Your task to perform on an android device: Search for vegetarian restaurants on Maps Image 0: 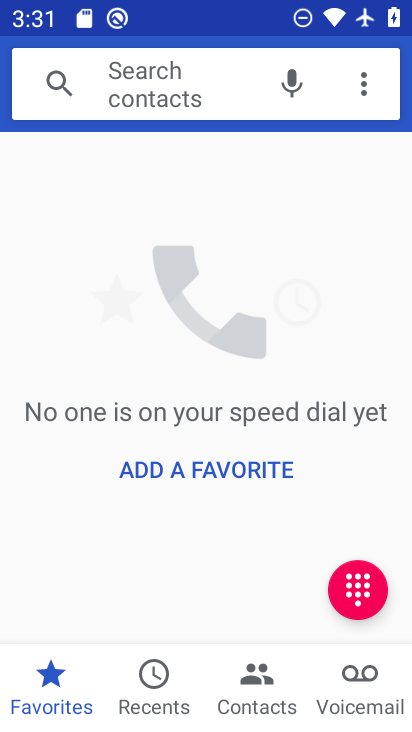
Step 0: press home button
Your task to perform on an android device: Search for vegetarian restaurants on Maps Image 1: 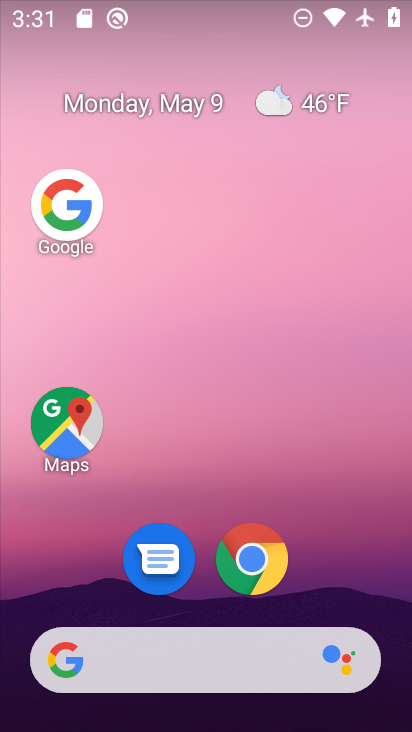
Step 1: click (54, 429)
Your task to perform on an android device: Search for vegetarian restaurants on Maps Image 2: 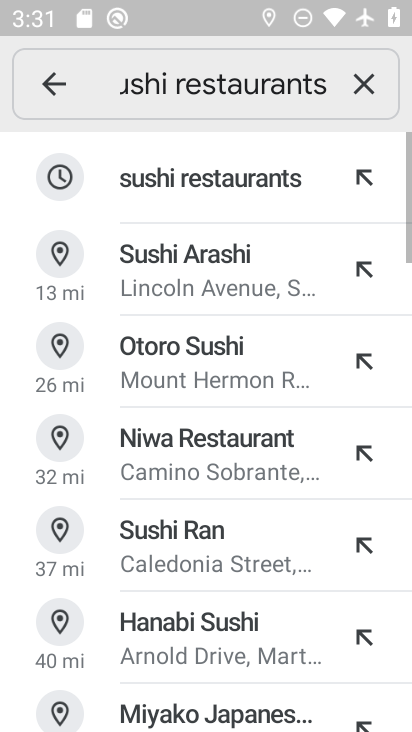
Step 2: click (358, 84)
Your task to perform on an android device: Search for vegetarian restaurants on Maps Image 3: 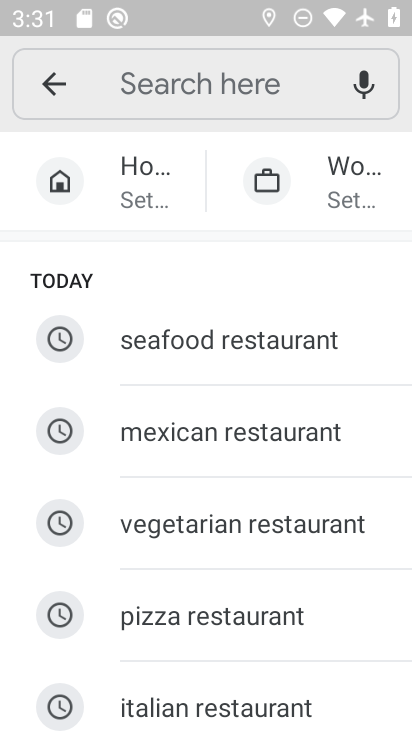
Step 3: click (219, 523)
Your task to perform on an android device: Search for vegetarian restaurants on Maps Image 4: 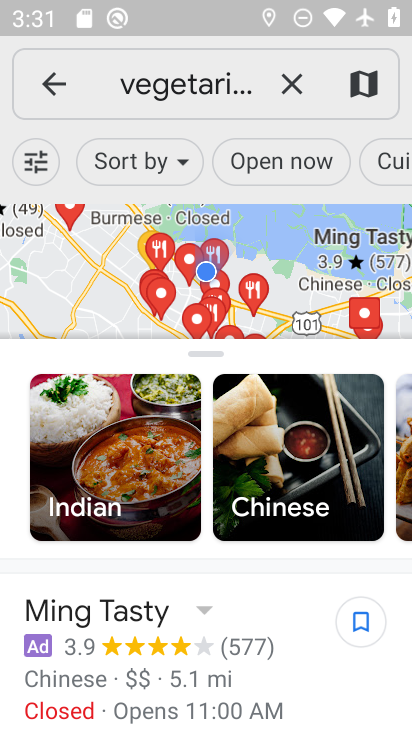
Step 4: task complete